Your task to perform on an android device: turn on improve location accuracy Image 0: 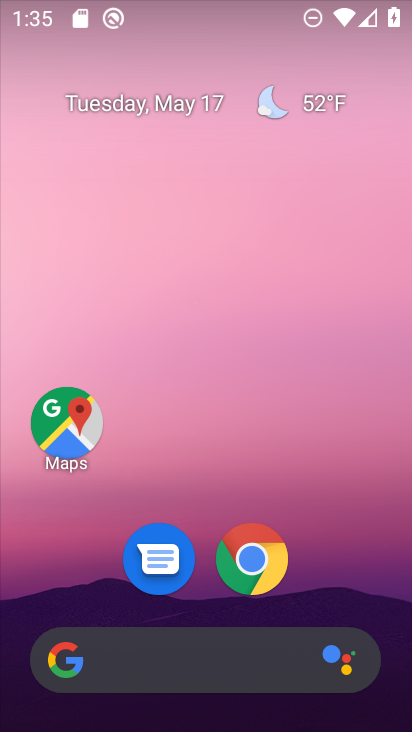
Step 0: drag from (330, 548) to (268, 98)
Your task to perform on an android device: turn on improve location accuracy Image 1: 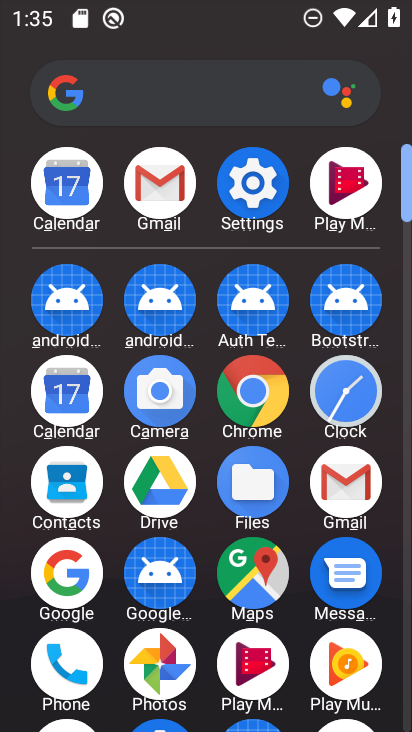
Step 1: click (254, 181)
Your task to perform on an android device: turn on improve location accuracy Image 2: 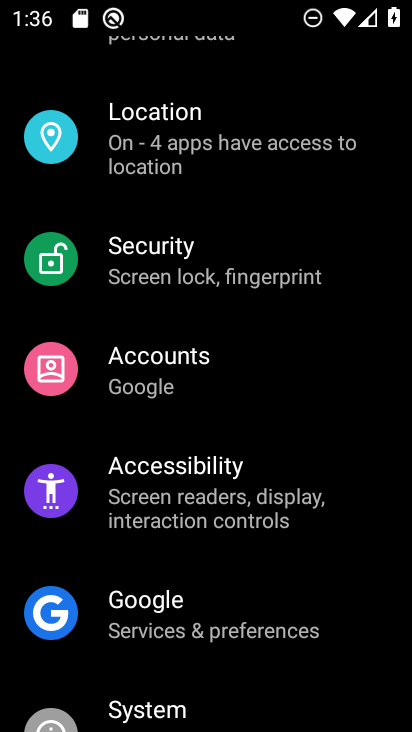
Step 2: click (198, 153)
Your task to perform on an android device: turn on improve location accuracy Image 3: 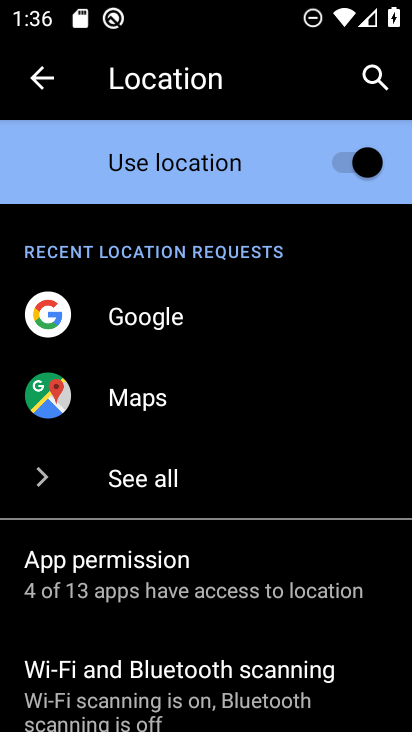
Step 3: drag from (251, 539) to (293, 443)
Your task to perform on an android device: turn on improve location accuracy Image 4: 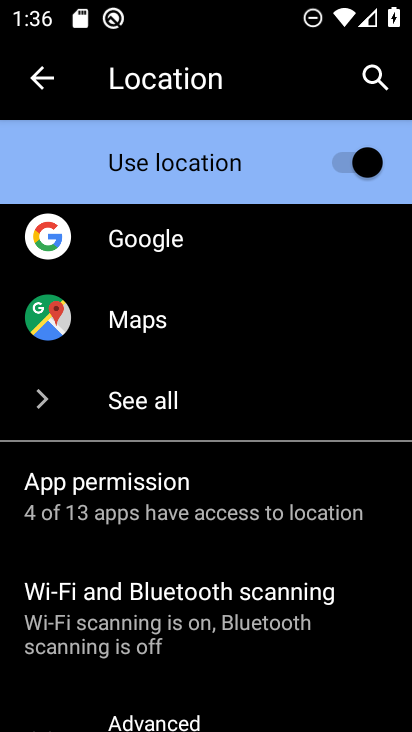
Step 4: drag from (213, 645) to (283, 512)
Your task to perform on an android device: turn on improve location accuracy Image 5: 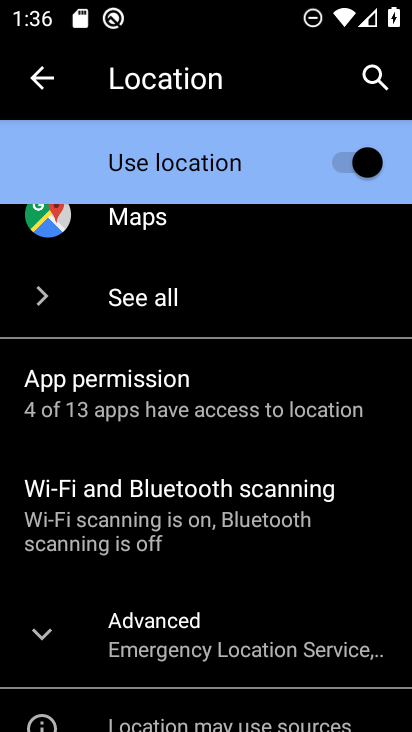
Step 5: click (256, 647)
Your task to perform on an android device: turn on improve location accuracy Image 6: 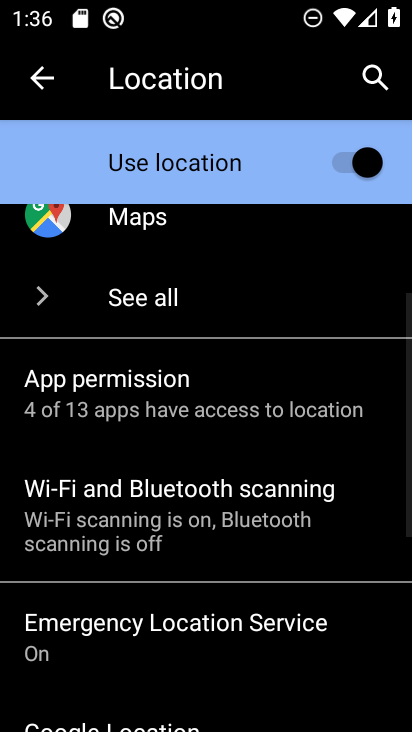
Step 6: drag from (219, 663) to (262, 561)
Your task to perform on an android device: turn on improve location accuracy Image 7: 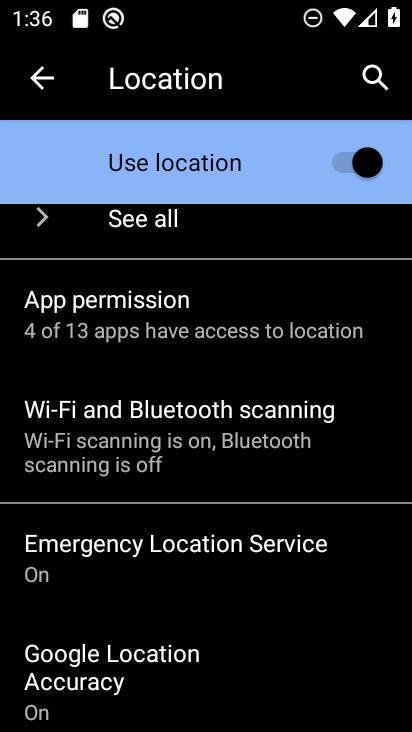
Step 7: drag from (219, 666) to (283, 566)
Your task to perform on an android device: turn on improve location accuracy Image 8: 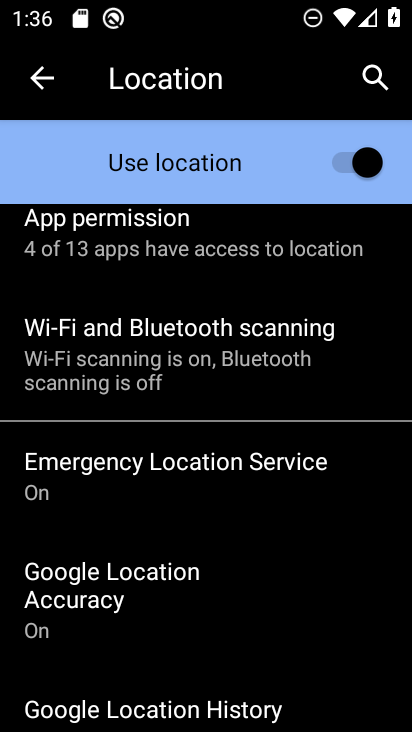
Step 8: click (118, 572)
Your task to perform on an android device: turn on improve location accuracy Image 9: 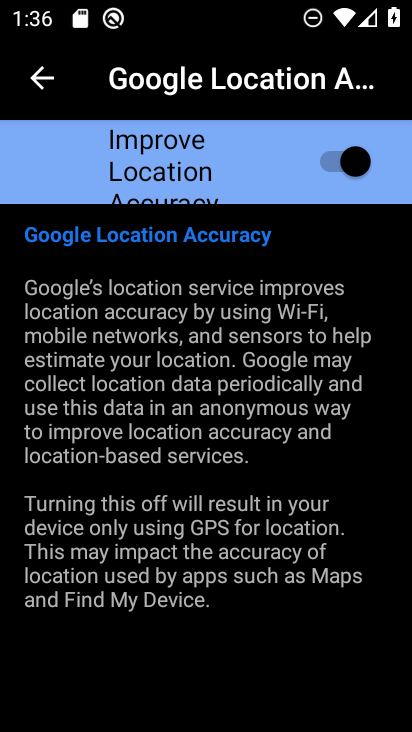
Step 9: task complete